Your task to perform on an android device: Open maps Image 0: 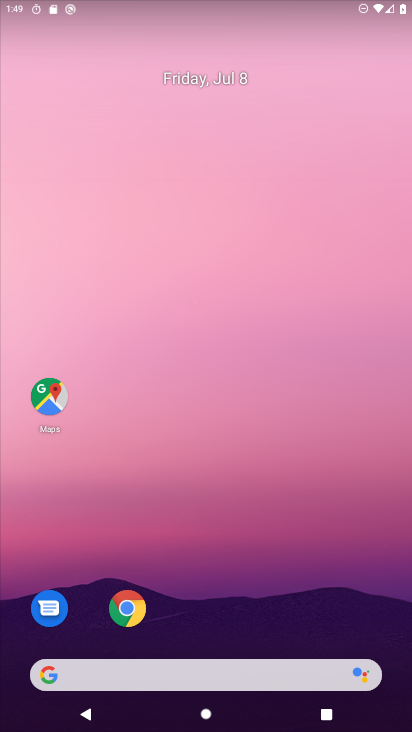
Step 0: drag from (241, 671) to (245, 46)
Your task to perform on an android device: Open maps Image 1: 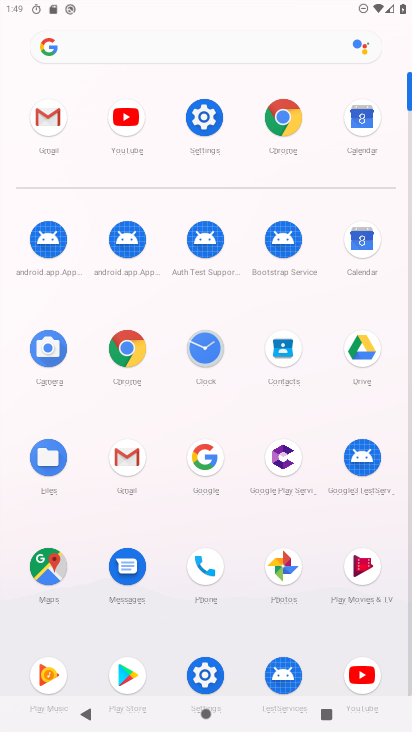
Step 1: click (47, 566)
Your task to perform on an android device: Open maps Image 2: 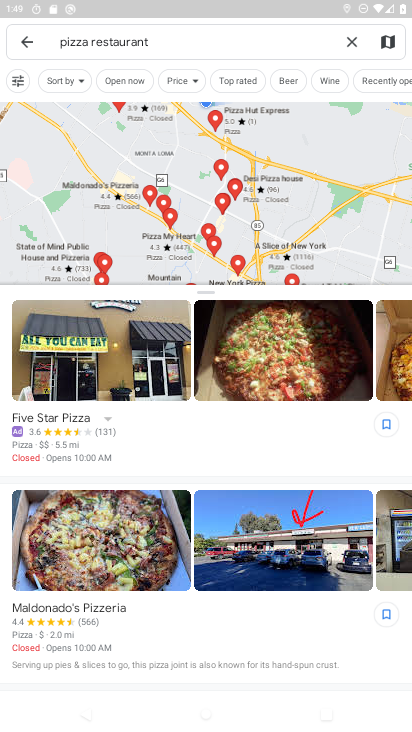
Step 2: task complete